Your task to perform on an android device: Open Yahoo.com Image 0: 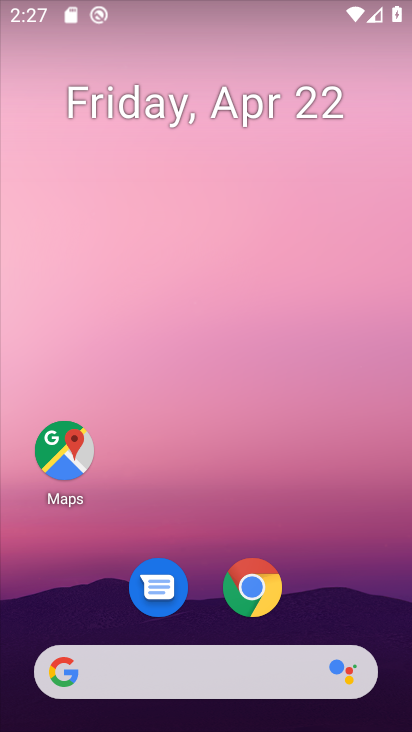
Step 0: click (263, 604)
Your task to perform on an android device: Open Yahoo.com Image 1: 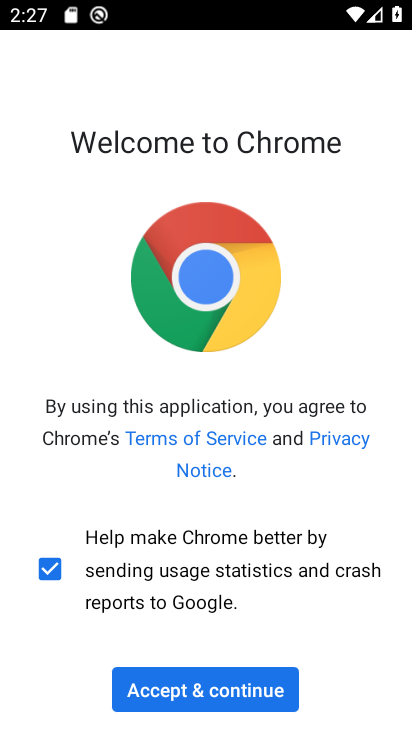
Step 1: click (203, 703)
Your task to perform on an android device: Open Yahoo.com Image 2: 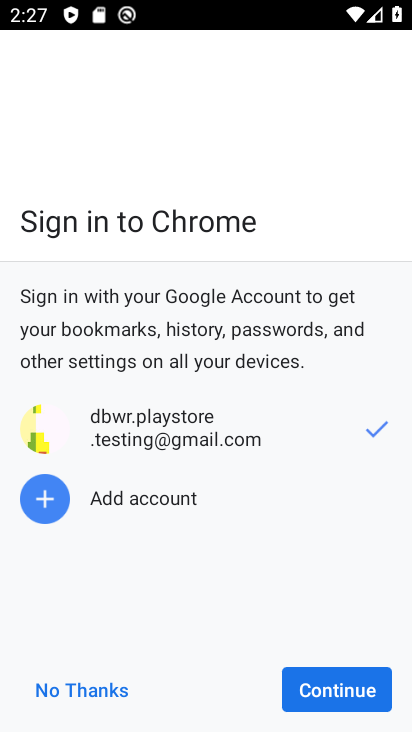
Step 2: click (323, 681)
Your task to perform on an android device: Open Yahoo.com Image 3: 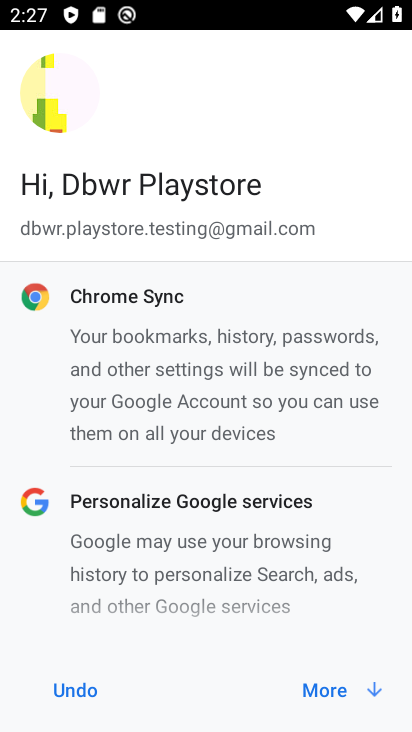
Step 3: click (322, 686)
Your task to perform on an android device: Open Yahoo.com Image 4: 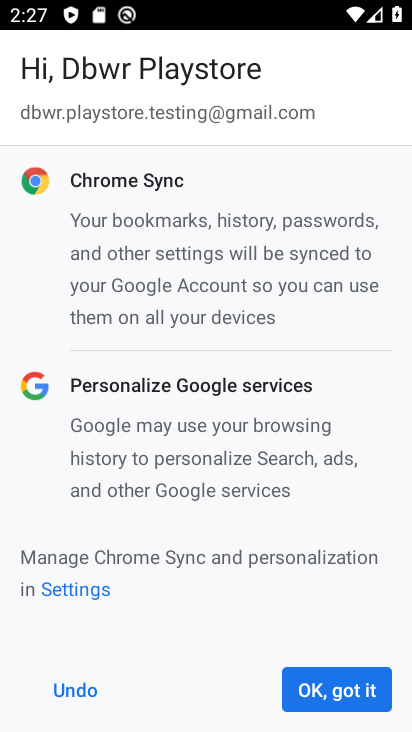
Step 4: click (304, 702)
Your task to perform on an android device: Open Yahoo.com Image 5: 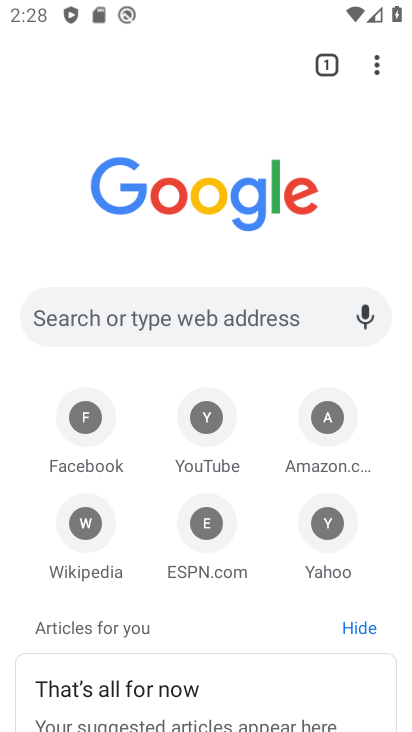
Step 5: click (231, 313)
Your task to perform on an android device: Open Yahoo.com Image 6: 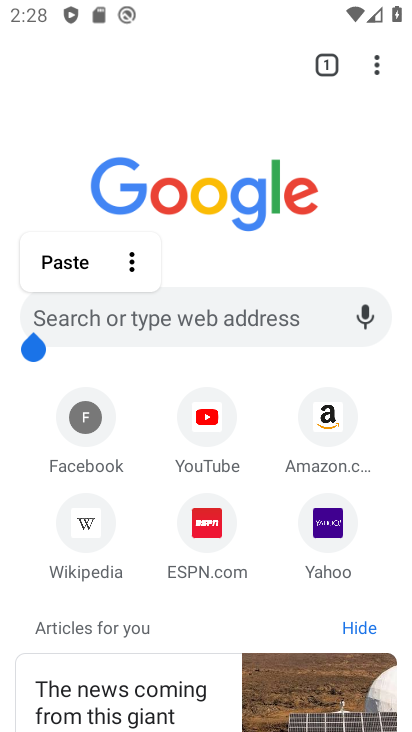
Step 6: type "yahoo.com"
Your task to perform on an android device: Open Yahoo.com Image 7: 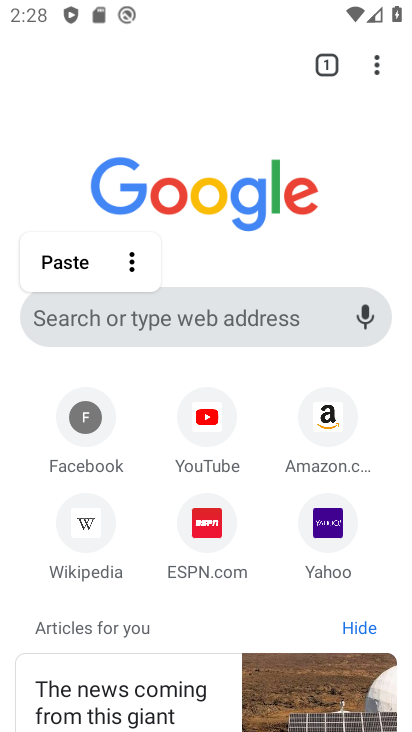
Step 7: click (257, 329)
Your task to perform on an android device: Open Yahoo.com Image 8: 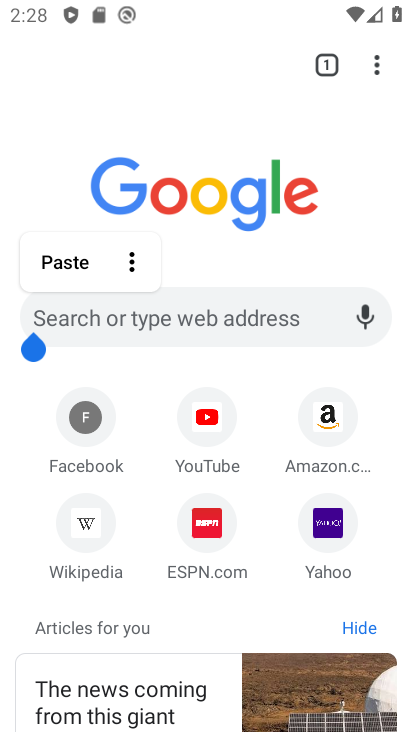
Step 8: click (273, 328)
Your task to perform on an android device: Open Yahoo.com Image 9: 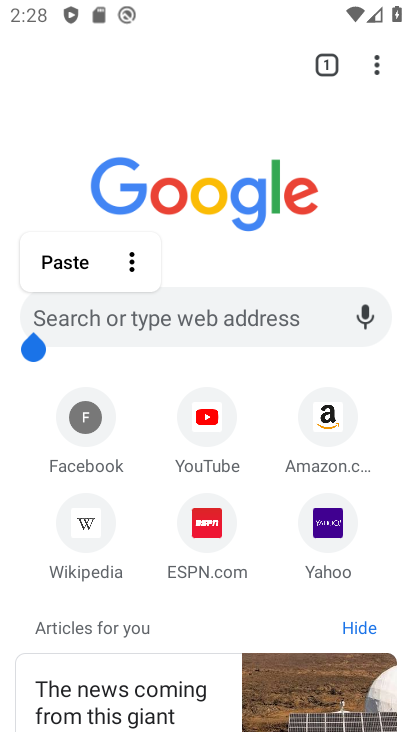
Step 9: click (273, 328)
Your task to perform on an android device: Open Yahoo.com Image 10: 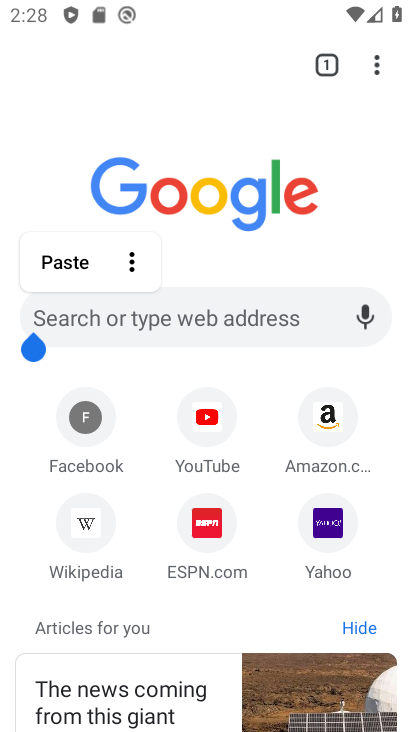
Step 10: click (273, 328)
Your task to perform on an android device: Open Yahoo.com Image 11: 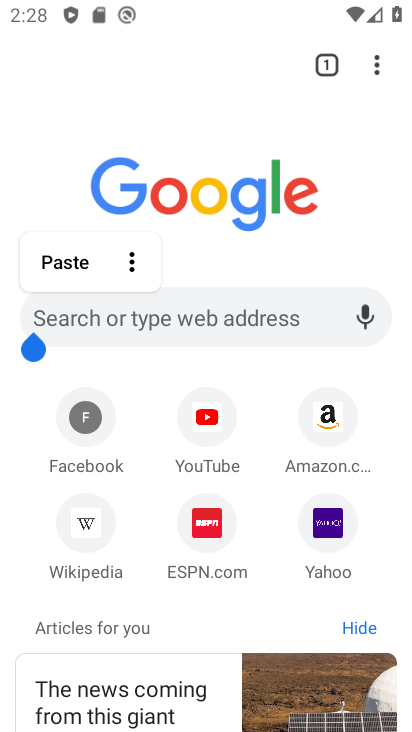
Step 11: click (283, 321)
Your task to perform on an android device: Open Yahoo.com Image 12: 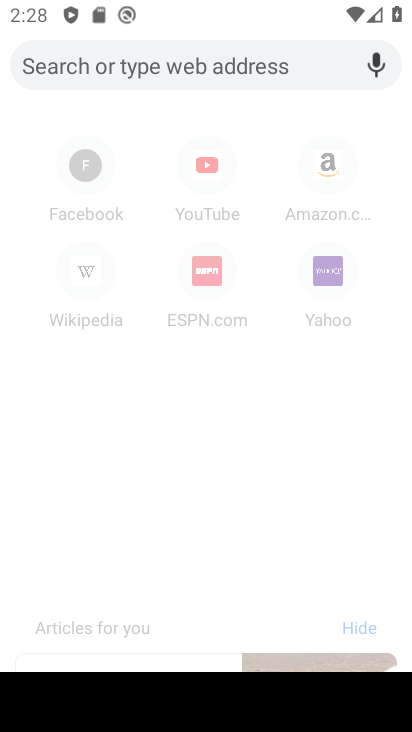
Step 12: click (222, 66)
Your task to perform on an android device: Open Yahoo.com Image 13: 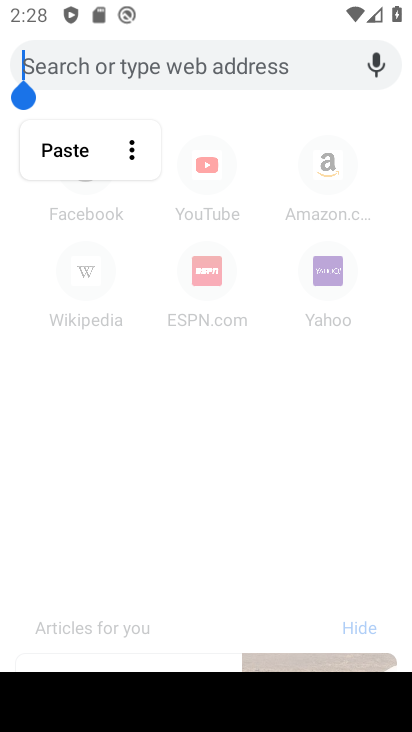
Step 13: type "yahoo.com"
Your task to perform on an android device: Open Yahoo.com Image 14: 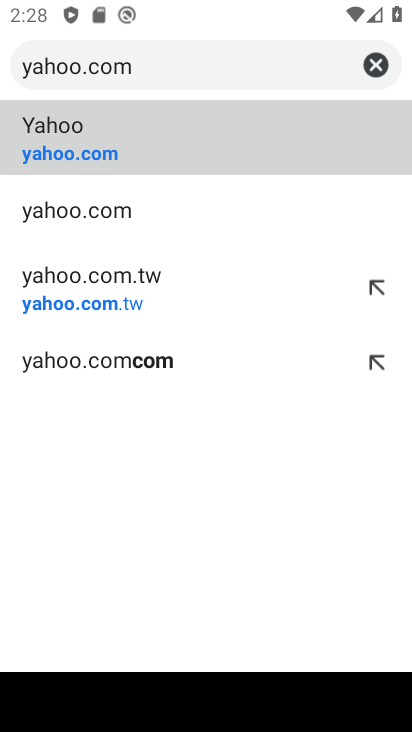
Step 14: click (94, 153)
Your task to perform on an android device: Open Yahoo.com Image 15: 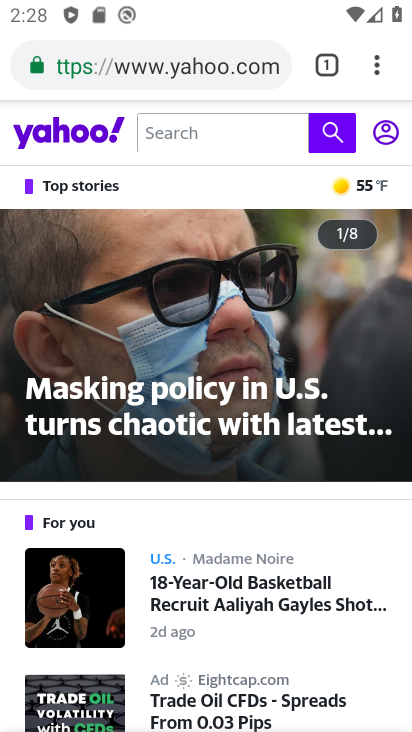
Step 15: task complete